Your task to perform on an android device: open chrome and create a bookmark for the current page Image 0: 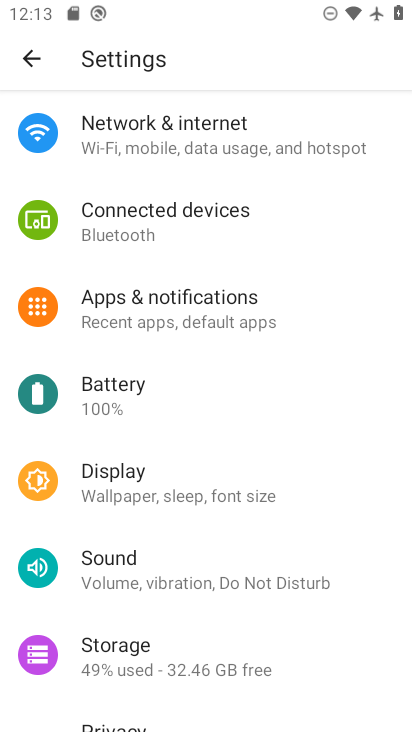
Step 0: press home button
Your task to perform on an android device: open chrome and create a bookmark for the current page Image 1: 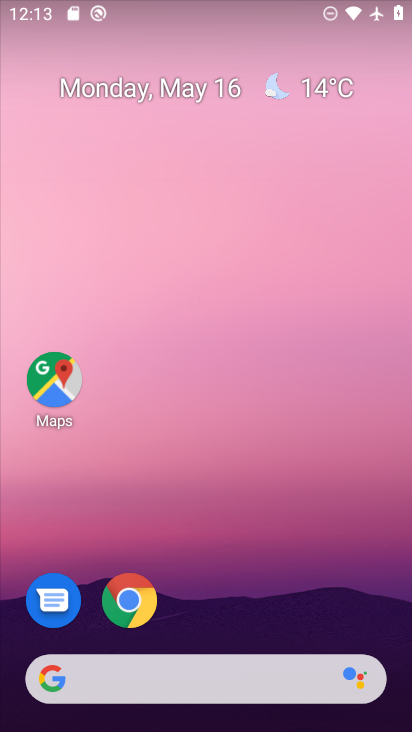
Step 1: click (122, 599)
Your task to perform on an android device: open chrome and create a bookmark for the current page Image 2: 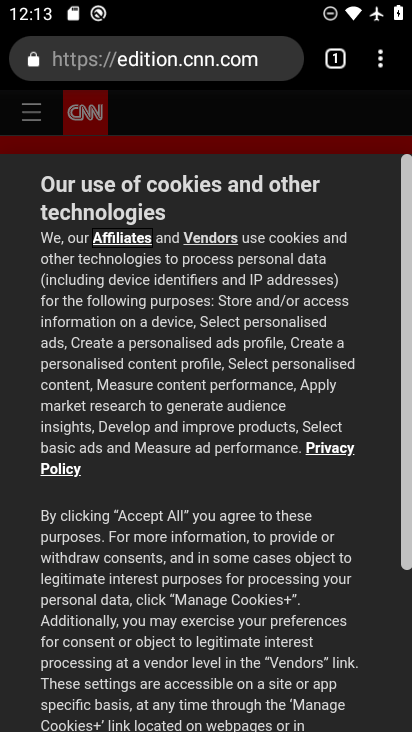
Step 2: click (380, 66)
Your task to perform on an android device: open chrome and create a bookmark for the current page Image 3: 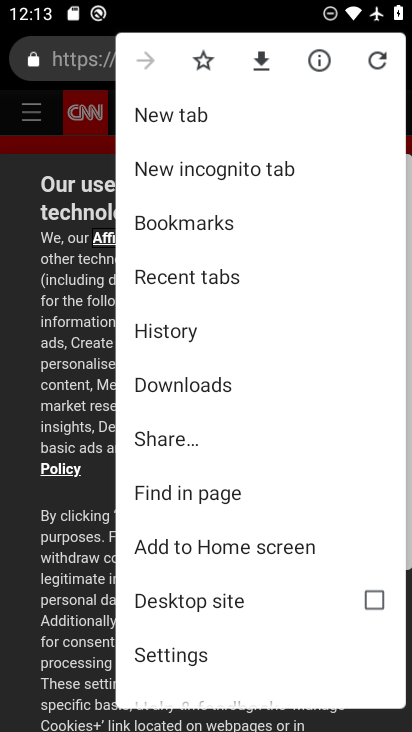
Step 3: click (204, 62)
Your task to perform on an android device: open chrome and create a bookmark for the current page Image 4: 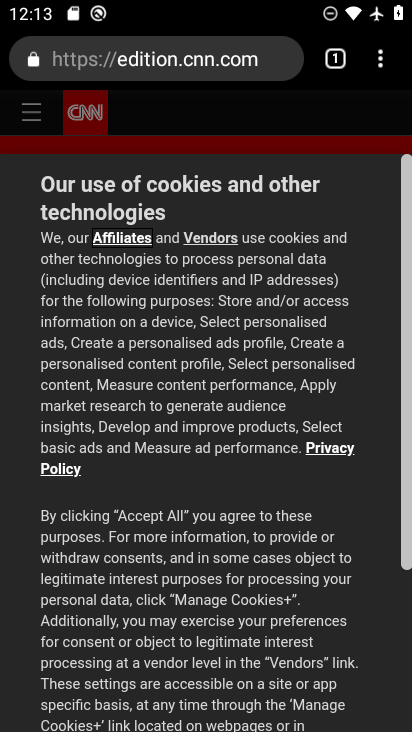
Step 4: task complete